Your task to perform on an android device: Open Google Image 0: 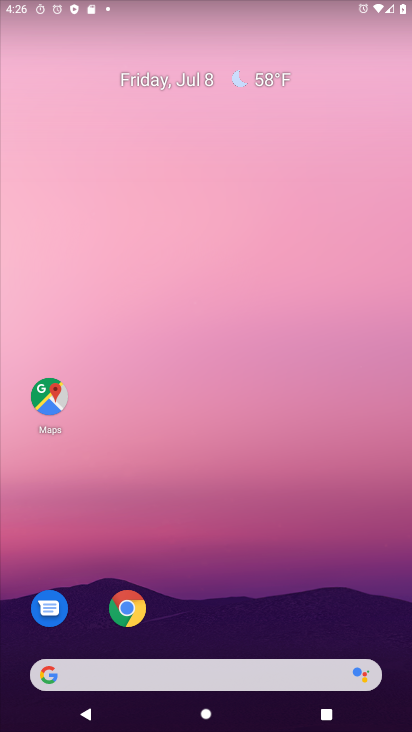
Step 0: drag from (251, 641) to (307, 15)
Your task to perform on an android device: Open Google Image 1: 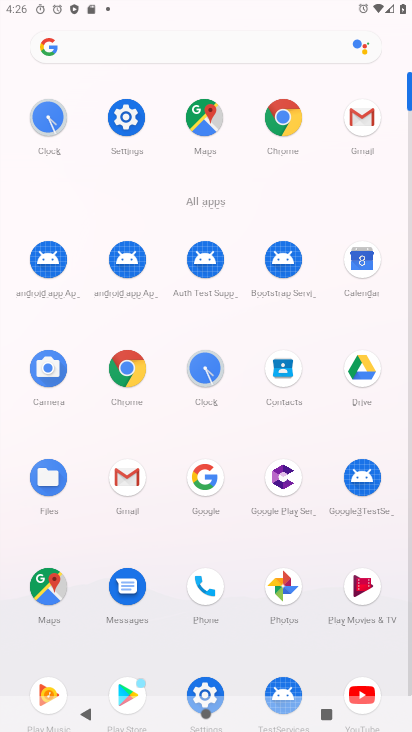
Step 1: click (206, 480)
Your task to perform on an android device: Open Google Image 2: 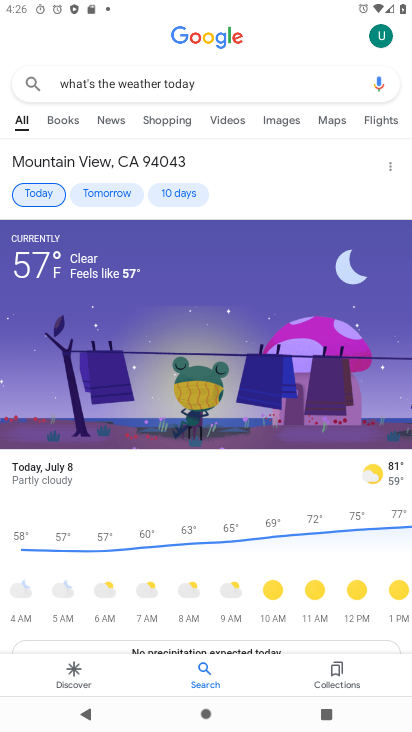
Step 2: task complete